Your task to perform on an android device: turn off data saver in the chrome app Image 0: 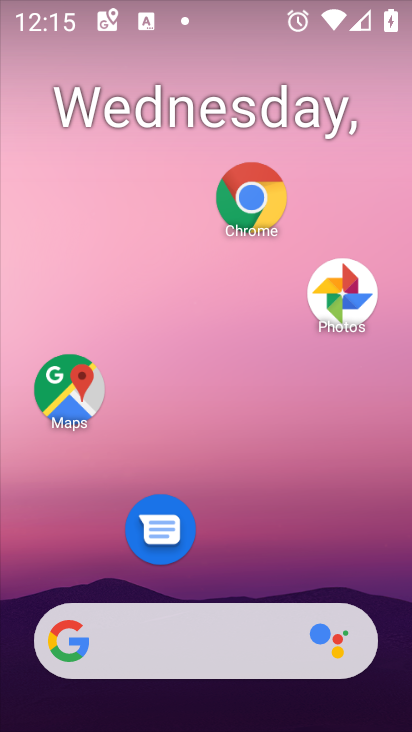
Step 0: drag from (222, 641) to (276, 126)
Your task to perform on an android device: turn off data saver in the chrome app Image 1: 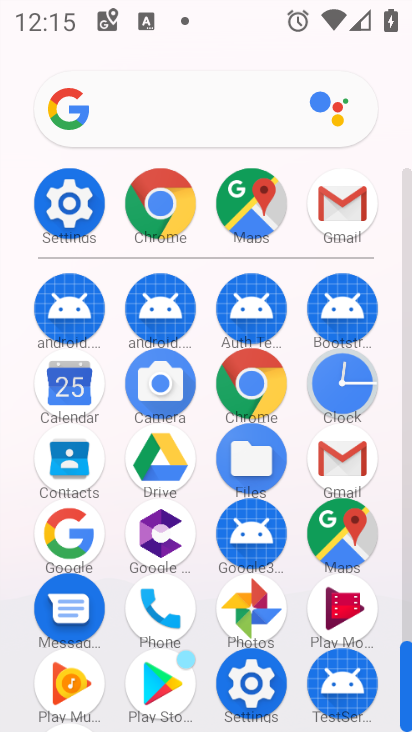
Step 1: click (166, 212)
Your task to perform on an android device: turn off data saver in the chrome app Image 2: 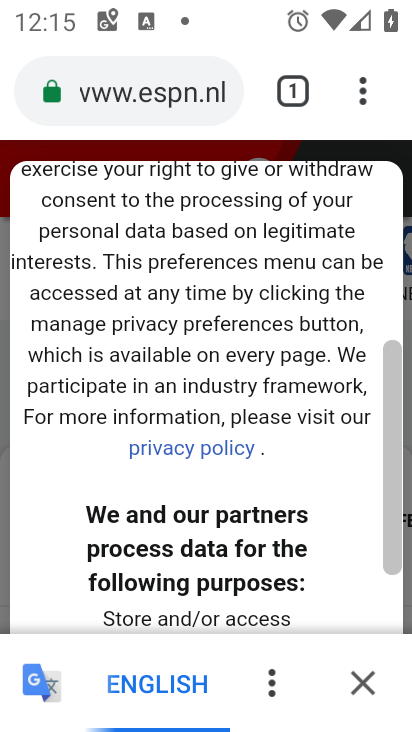
Step 2: click (361, 97)
Your task to perform on an android device: turn off data saver in the chrome app Image 3: 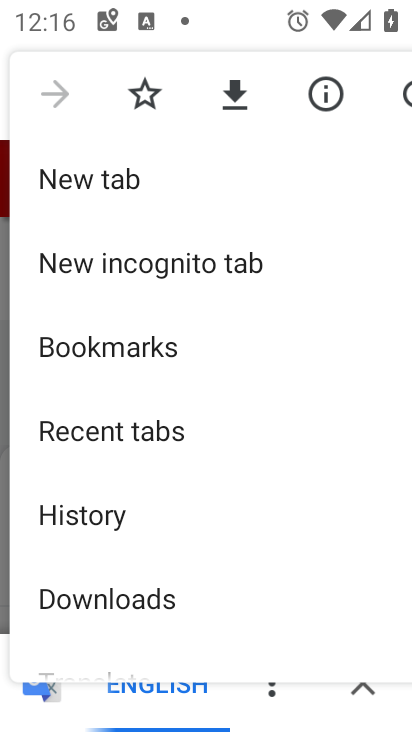
Step 3: drag from (115, 620) to (164, 320)
Your task to perform on an android device: turn off data saver in the chrome app Image 4: 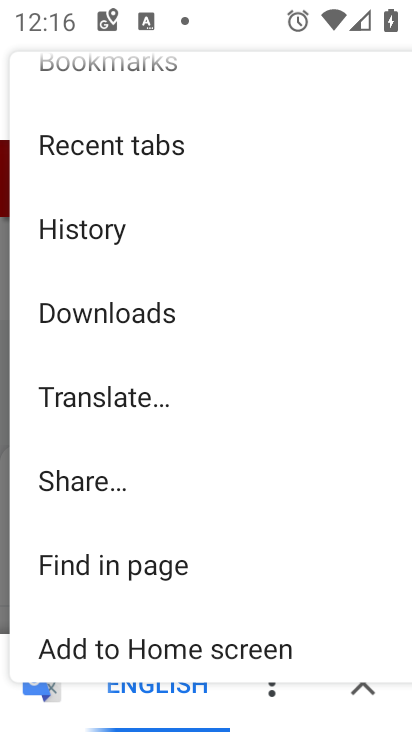
Step 4: drag from (111, 589) to (143, 370)
Your task to perform on an android device: turn off data saver in the chrome app Image 5: 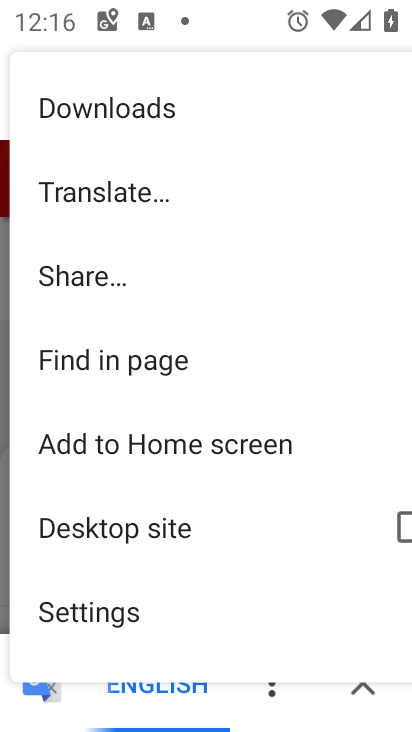
Step 5: click (155, 619)
Your task to perform on an android device: turn off data saver in the chrome app Image 6: 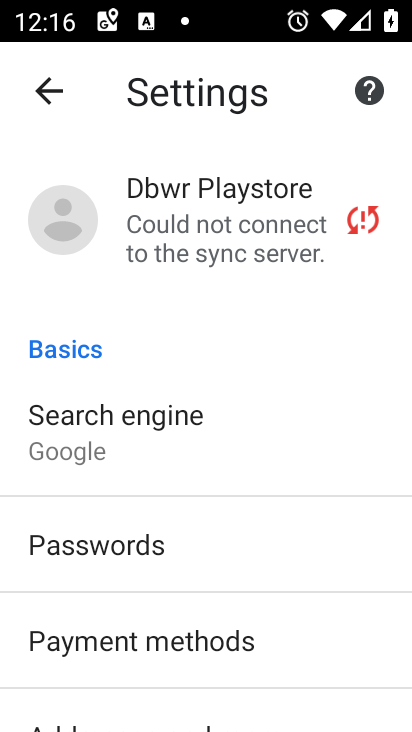
Step 6: drag from (163, 594) to (201, 296)
Your task to perform on an android device: turn off data saver in the chrome app Image 7: 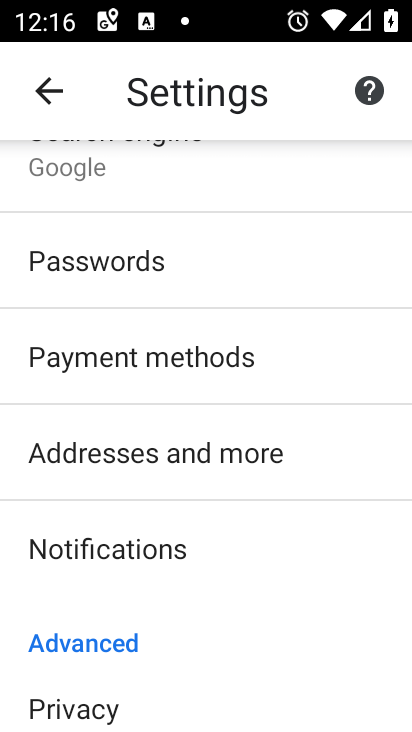
Step 7: drag from (189, 620) to (226, 304)
Your task to perform on an android device: turn off data saver in the chrome app Image 8: 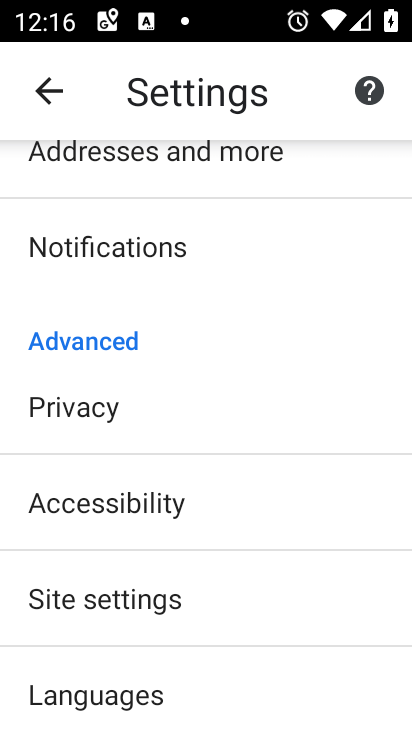
Step 8: drag from (223, 617) to (228, 370)
Your task to perform on an android device: turn off data saver in the chrome app Image 9: 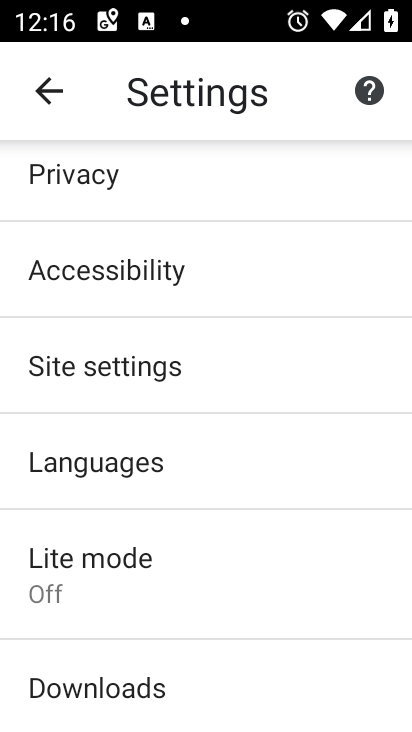
Step 9: click (149, 562)
Your task to perform on an android device: turn off data saver in the chrome app Image 10: 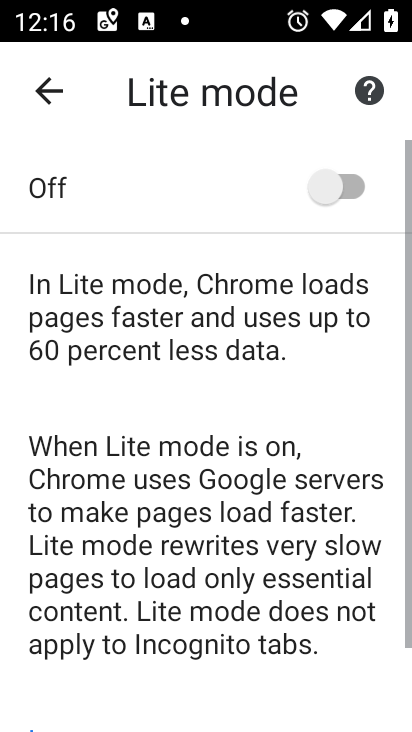
Step 10: task complete